Your task to perform on an android device: Open calendar and show me the second week of next month Image 0: 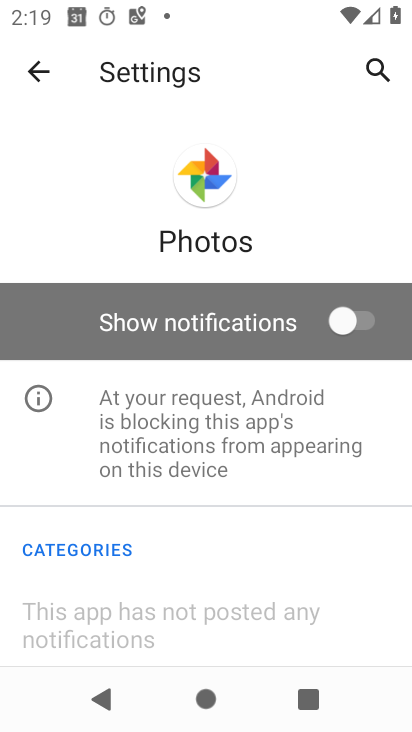
Step 0: press home button
Your task to perform on an android device: Open calendar and show me the second week of next month Image 1: 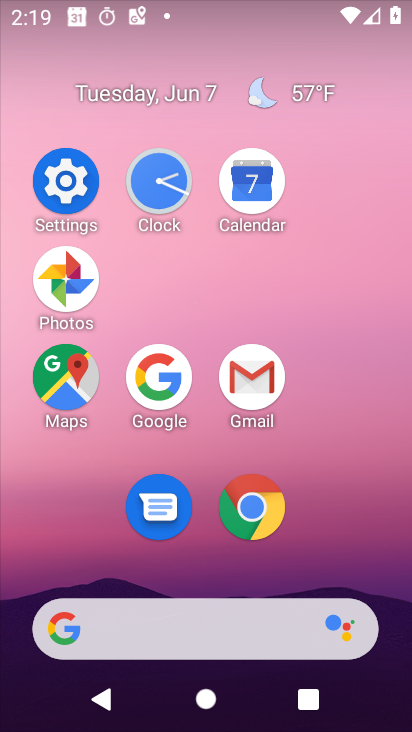
Step 1: click (249, 169)
Your task to perform on an android device: Open calendar and show me the second week of next month Image 2: 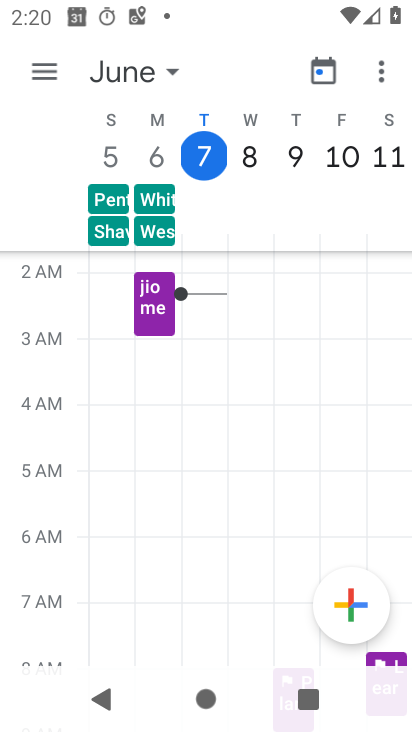
Step 2: click (36, 73)
Your task to perform on an android device: Open calendar and show me the second week of next month Image 3: 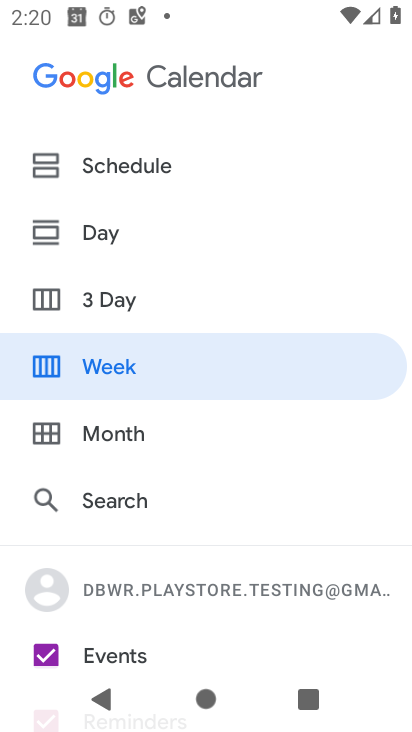
Step 3: click (161, 451)
Your task to perform on an android device: Open calendar and show me the second week of next month Image 4: 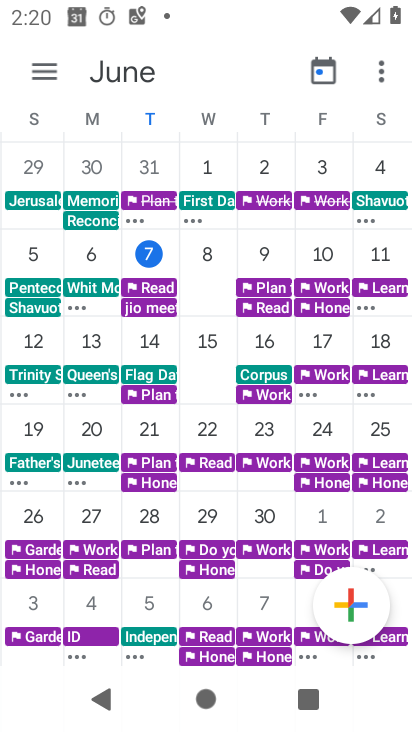
Step 4: drag from (371, 301) to (14, 292)
Your task to perform on an android device: Open calendar and show me the second week of next month Image 5: 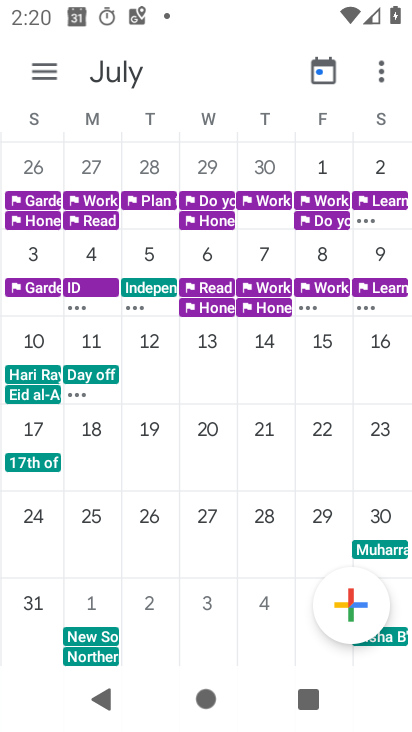
Step 5: click (53, 72)
Your task to perform on an android device: Open calendar and show me the second week of next month Image 6: 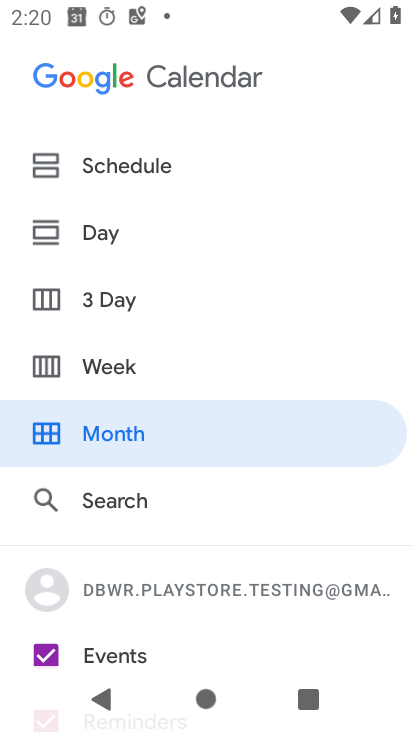
Step 6: click (120, 352)
Your task to perform on an android device: Open calendar and show me the second week of next month Image 7: 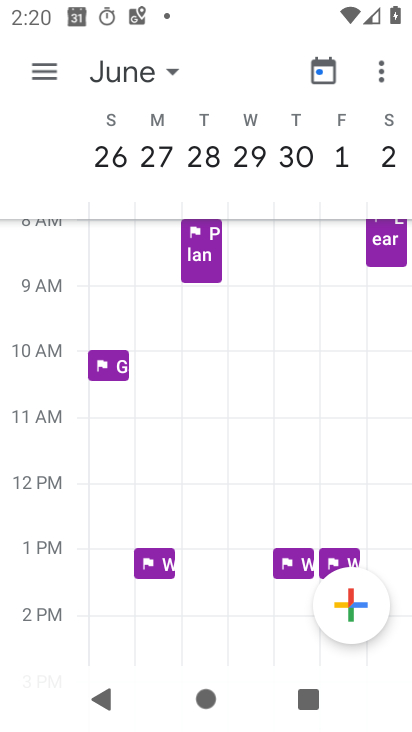
Step 7: task complete